Your task to perform on an android device: change alarm snooze length Image 0: 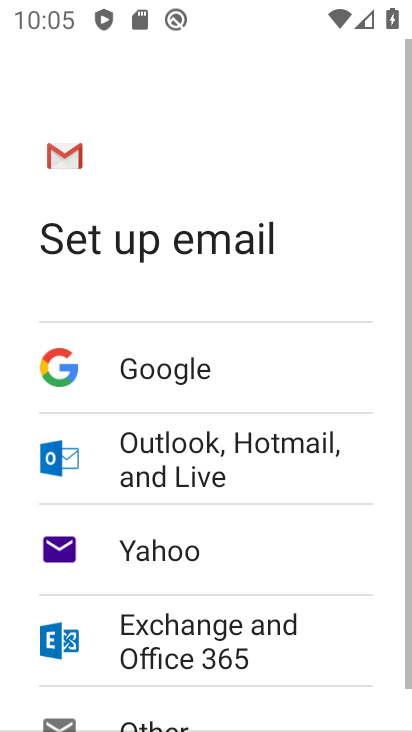
Step 0: press home button
Your task to perform on an android device: change alarm snooze length Image 1: 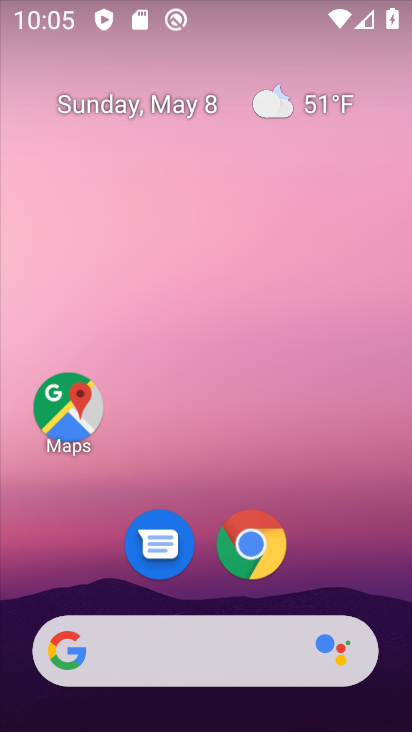
Step 1: drag from (337, 534) to (329, 138)
Your task to perform on an android device: change alarm snooze length Image 2: 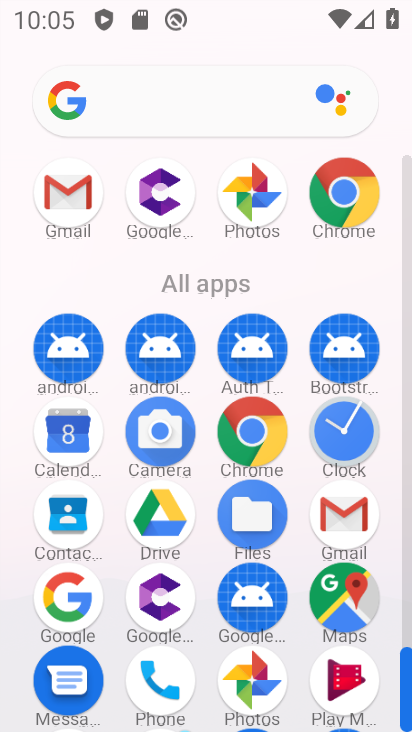
Step 2: click (348, 434)
Your task to perform on an android device: change alarm snooze length Image 3: 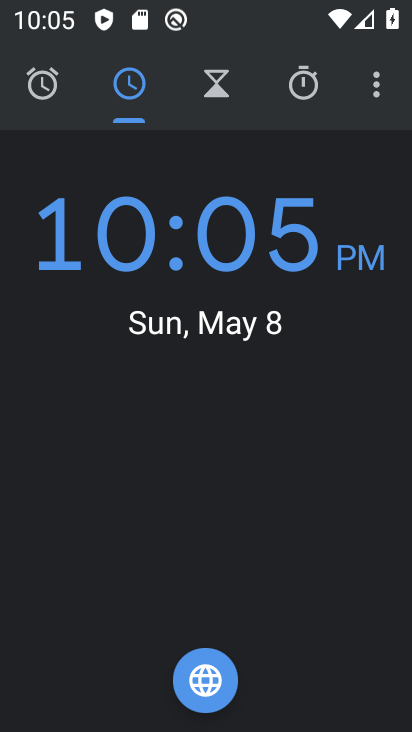
Step 3: click (382, 92)
Your task to perform on an android device: change alarm snooze length Image 4: 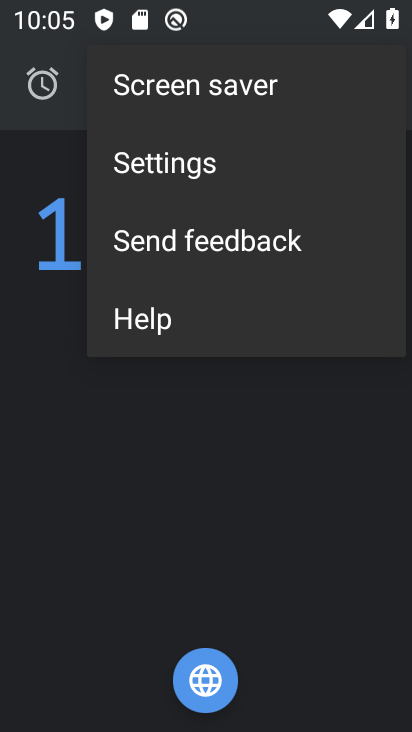
Step 4: click (207, 162)
Your task to perform on an android device: change alarm snooze length Image 5: 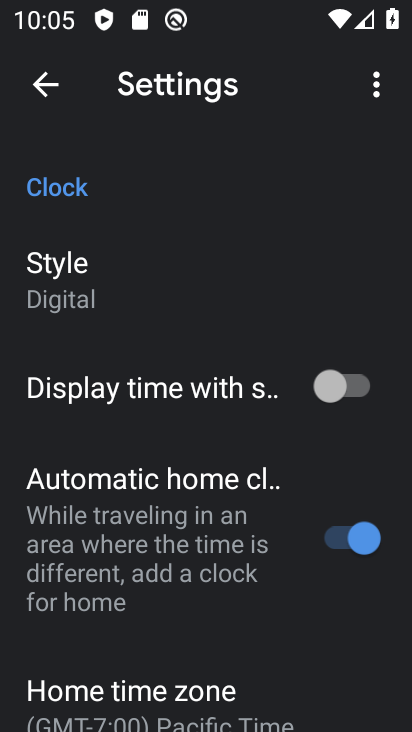
Step 5: drag from (171, 593) to (217, 166)
Your task to perform on an android device: change alarm snooze length Image 6: 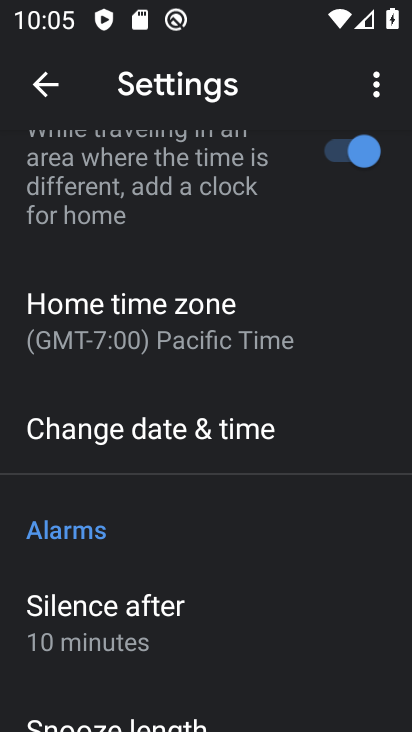
Step 6: drag from (174, 570) to (214, 183)
Your task to perform on an android device: change alarm snooze length Image 7: 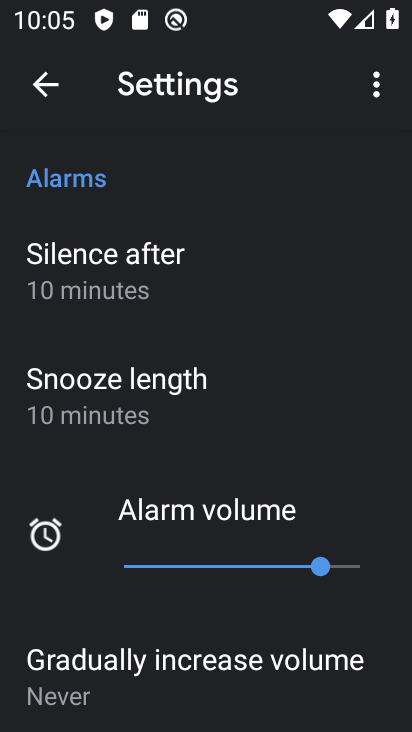
Step 7: click (111, 406)
Your task to perform on an android device: change alarm snooze length Image 8: 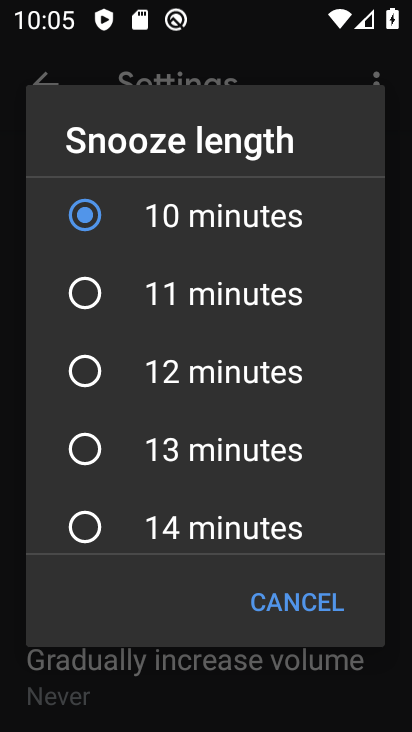
Step 8: click (105, 377)
Your task to perform on an android device: change alarm snooze length Image 9: 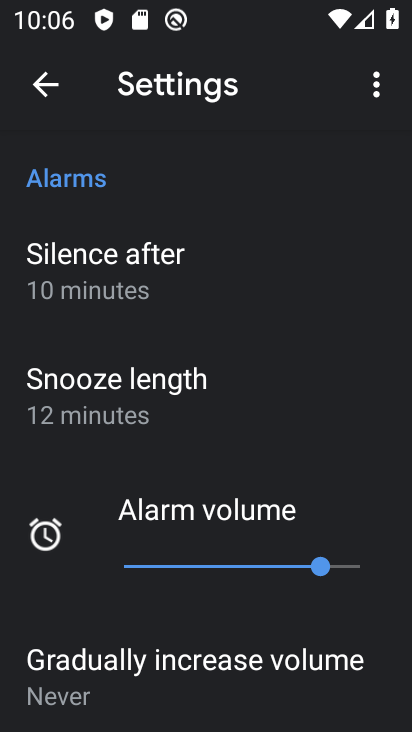
Step 9: task complete